Your task to perform on an android device: delete browsing data in the chrome app Image 0: 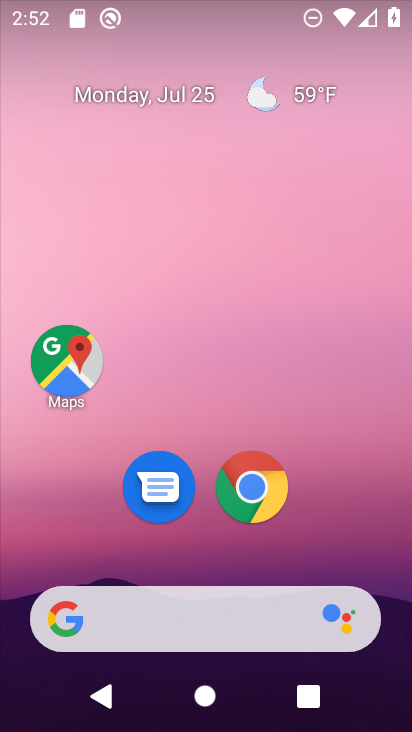
Step 0: click (244, 497)
Your task to perform on an android device: delete browsing data in the chrome app Image 1: 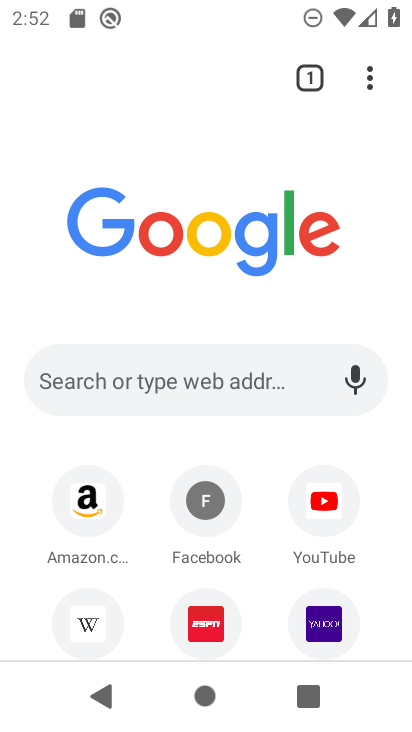
Step 1: drag from (376, 68) to (170, 548)
Your task to perform on an android device: delete browsing data in the chrome app Image 2: 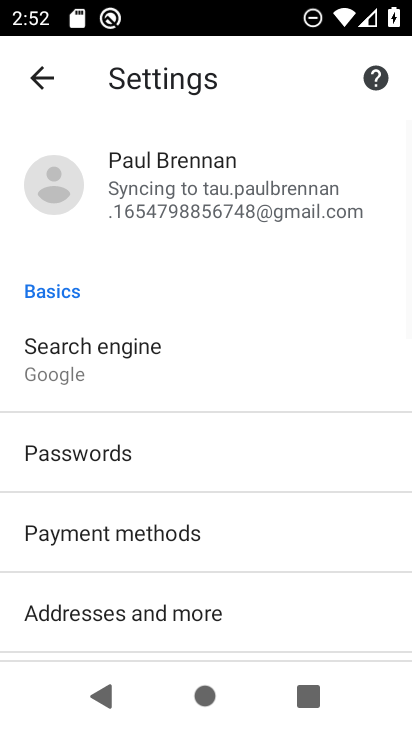
Step 2: drag from (193, 567) to (290, 88)
Your task to perform on an android device: delete browsing data in the chrome app Image 3: 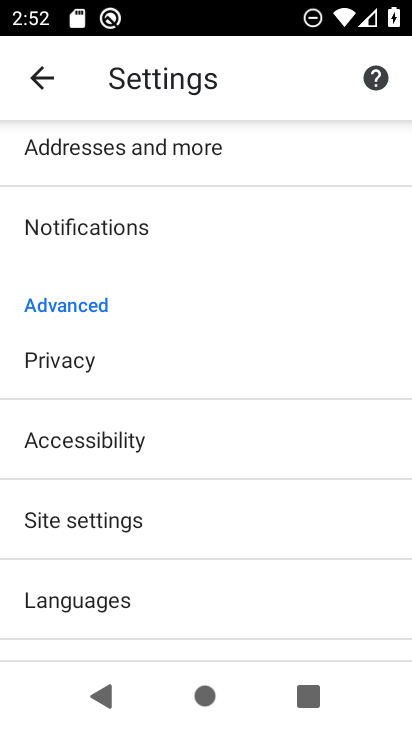
Step 3: drag from (181, 604) to (280, 422)
Your task to perform on an android device: delete browsing data in the chrome app Image 4: 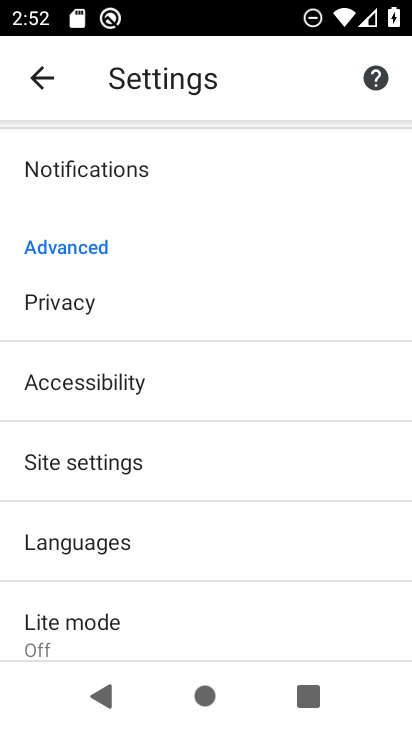
Step 4: drag from (235, 266) to (231, 720)
Your task to perform on an android device: delete browsing data in the chrome app Image 5: 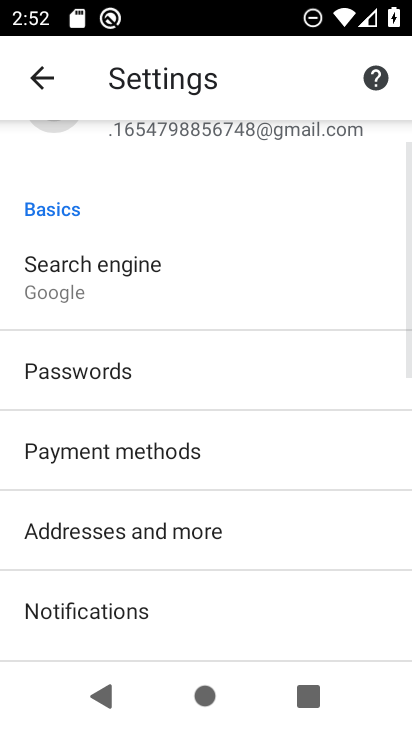
Step 5: drag from (184, 581) to (251, 637)
Your task to perform on an android device: delete browsing data in the chrome app Image 6: 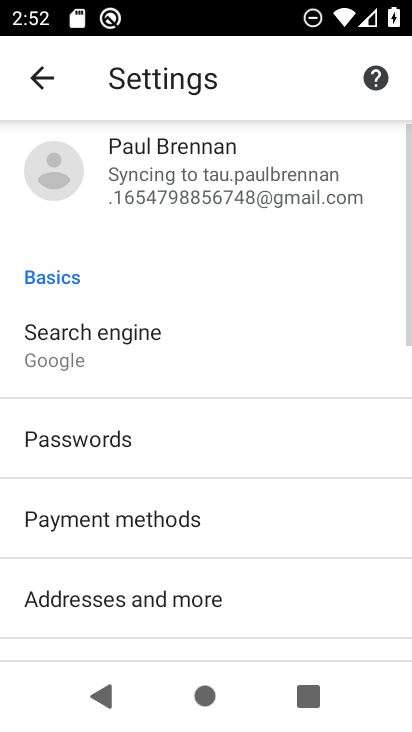
Step 6: click (45, 91)
Your task to perform on an android device: delete browsing data in the chrome app Image 7: 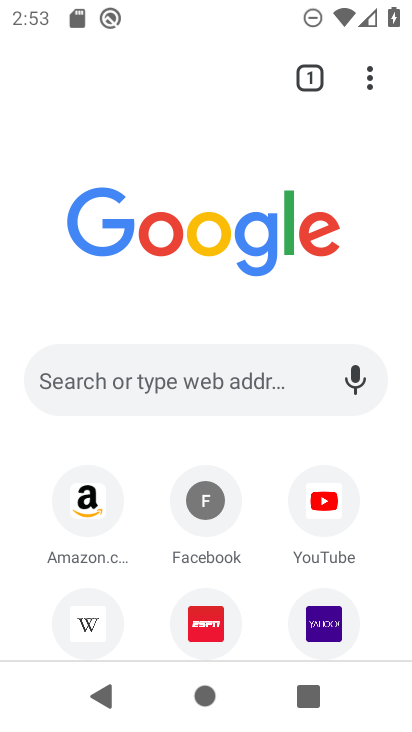
Step 7: drag from (368, 77) to (100, 441)
Your task to perform on an android device: delete browsing data in the chrome app Image 8: 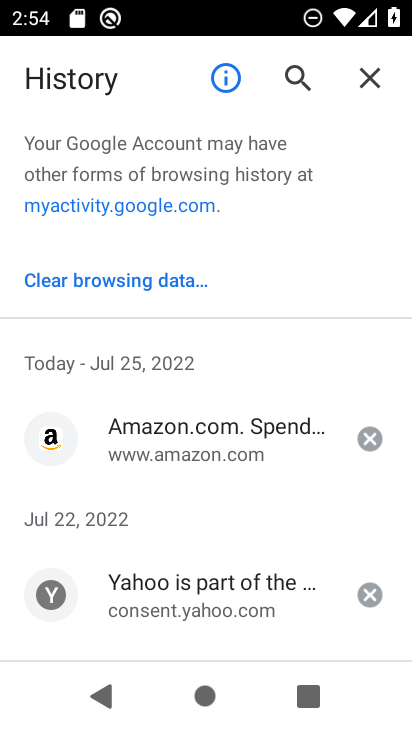
Step 8: click (132, 272)
Your task to perform on an android device: delete browsing data in the chrome app Image 9: 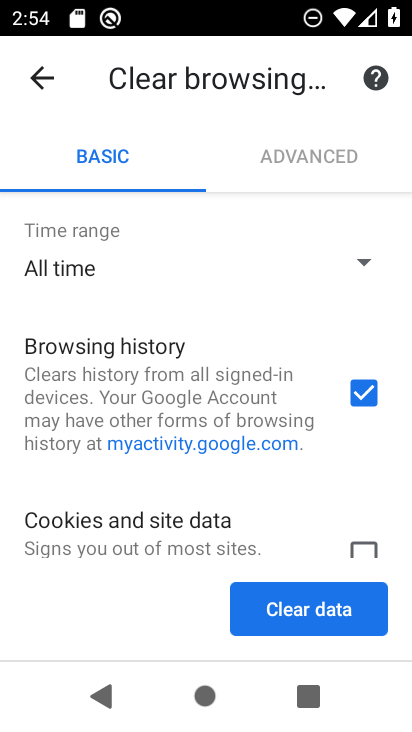
Step 9: drag from (146, 538) to (252, 325)
Your task to perform on an android device: delete browsing data in the chrome app Image 10: 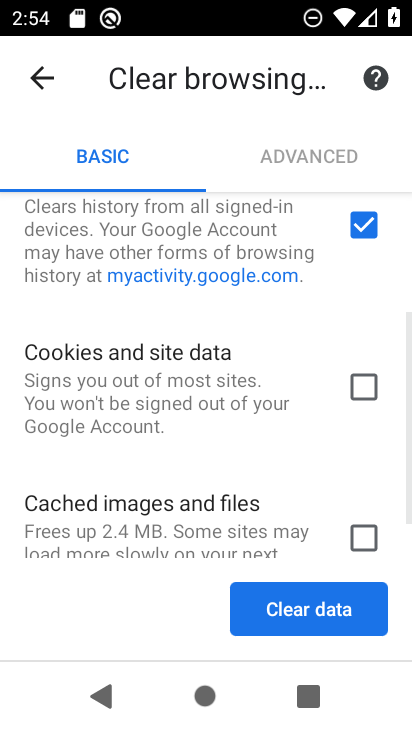
Step 10: click (356, 392)
Your task to perform on an android device: delete browsing data in the chrome app Image 11: 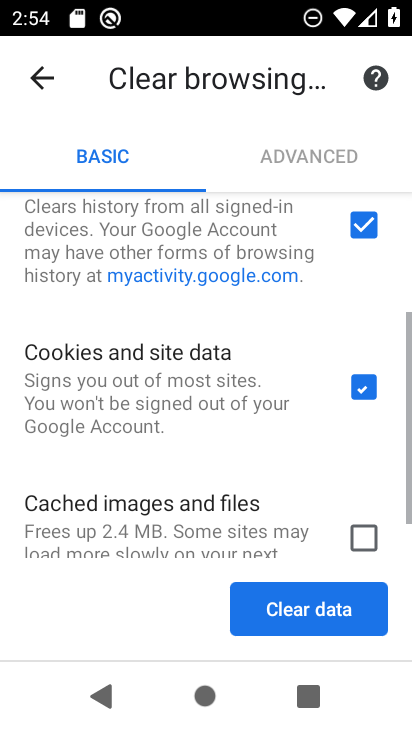
Step 11: click (372, 546)
Your task to perform on an android device: delete browsing data in the chrome app Image 12: 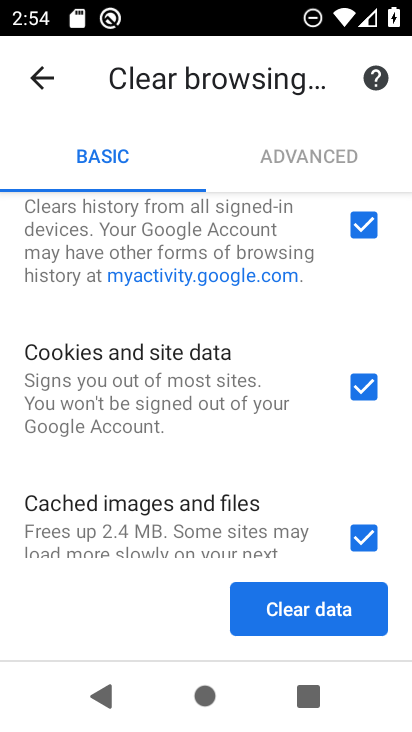
Step 12: click (300, 613)
Your task to perform on an android device: delete browsing data in the chrome app Image 13: 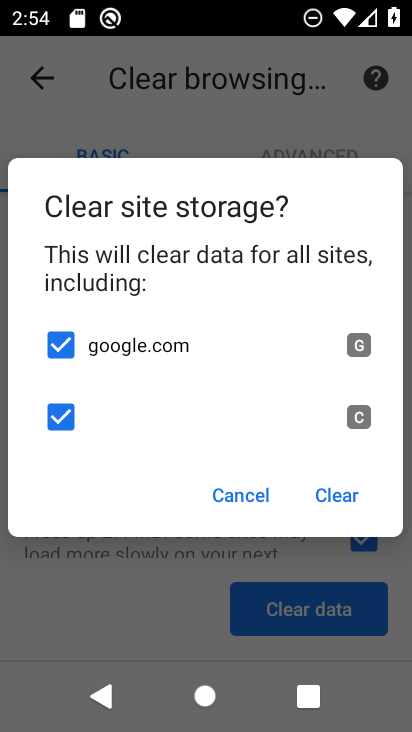
Step 13: click (334, 497)
Your task to perform on an android device: delete browsing data in the chrome app Image 14: 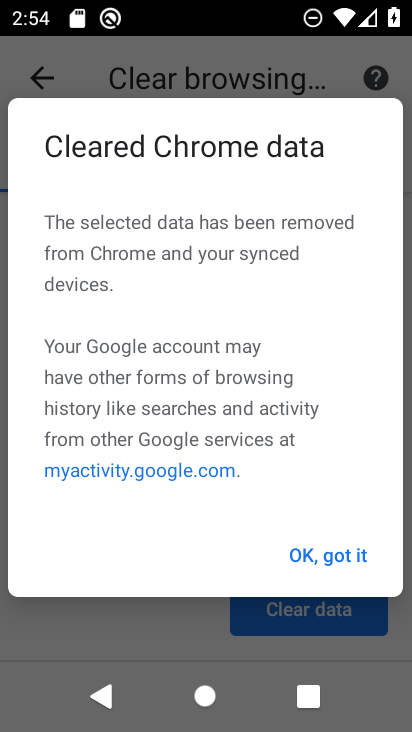
Step 14: task complete